Your task to perform on an android device: Open Google Chrome and open the bookmarks view Image 0: 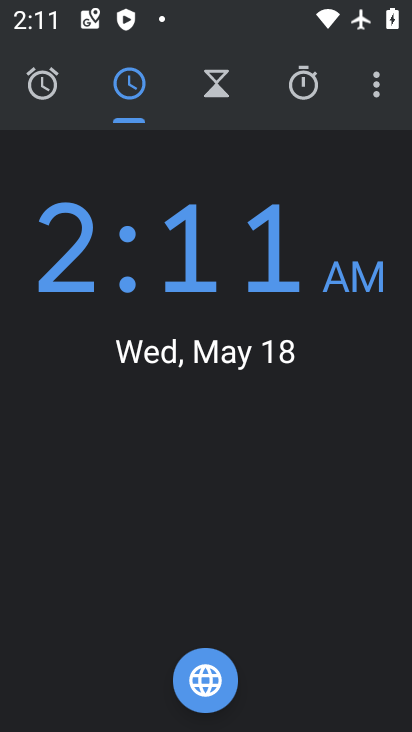
Step 0: press home button
Your task to perform on an android device: Open Google Chrome and open the bookmarks view Image 1: 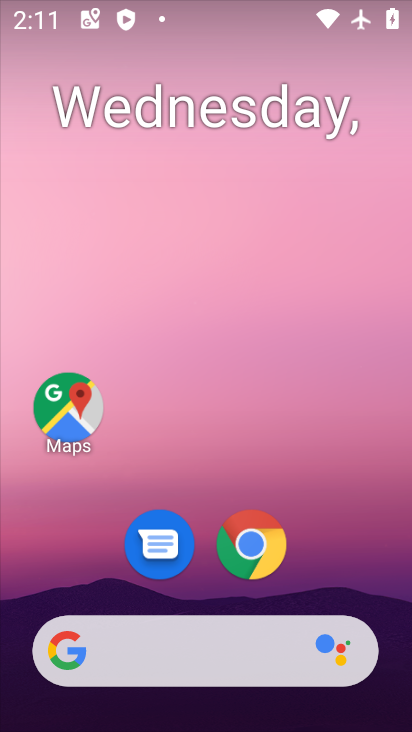
Step 1: click (268, 570)
Your task to perform on an android device: Open Google Chrome and open the bookmarks view Image 2: 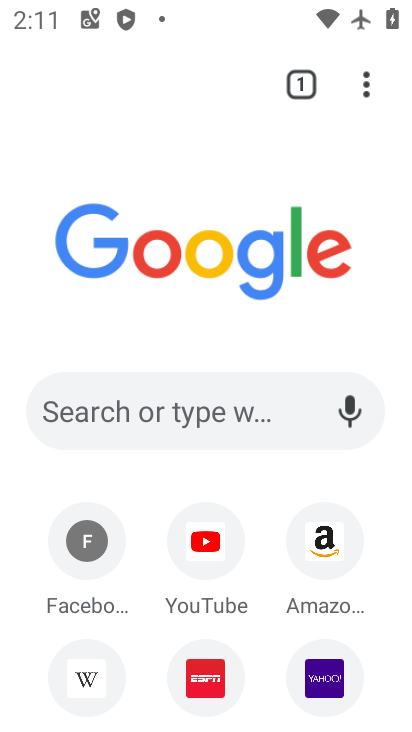
Step 2: click (366, 90)
Your task to perform on an android device: Open Google Chrome and open the bookmarks view Image 3: 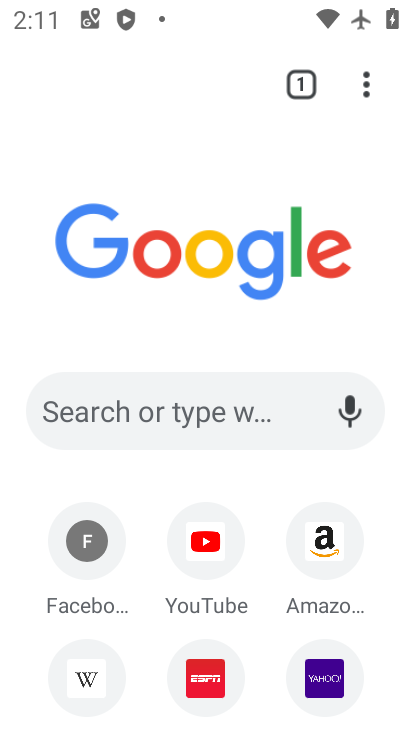
Step 3: click (363, 98)
Your task to perform on an android device: Open Google Chrome and open the bookmarks view Image 4: 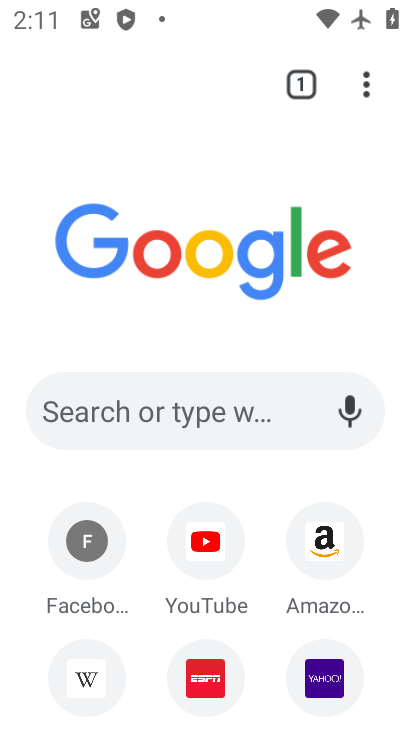
Step 4: click (374, 84)
Your task to perform on an android device: Open Google Chrome and open the bookmarks view Image 5: 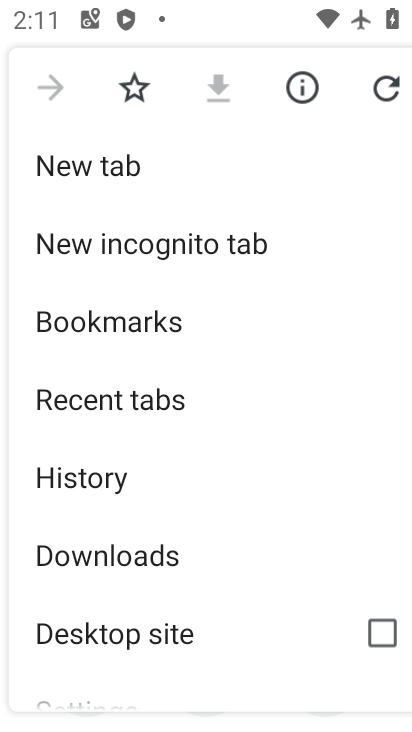
Step 5: click (183, 310)
Your task to perform on an android device: Open Google Chrome and open the bookmarks view Image 6: 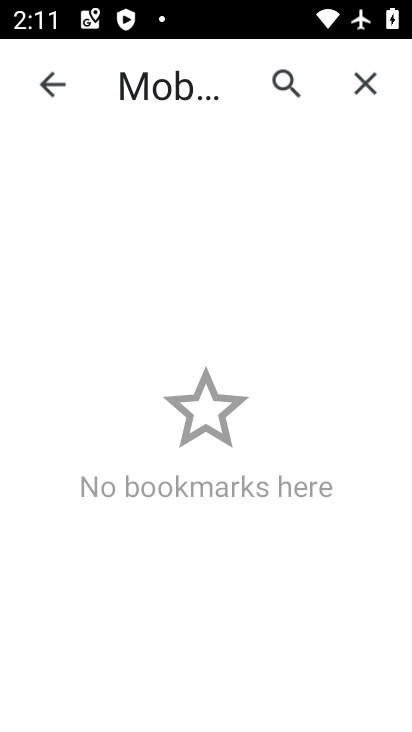
Step 6: task complete